Your task to perform on an android device: What is the news today? Image 0: 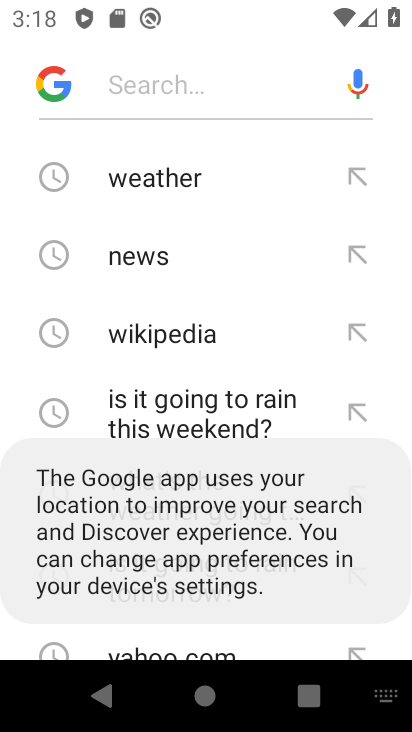
Step 0: press home button
Your task to perform on an android device: What is the news today? Image 1: 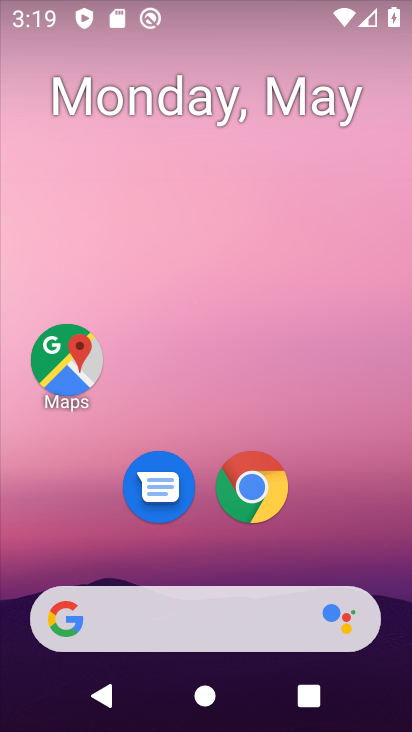
Step 1: task complete